Your task to perform on an android device: change text size in settings app Image 0: 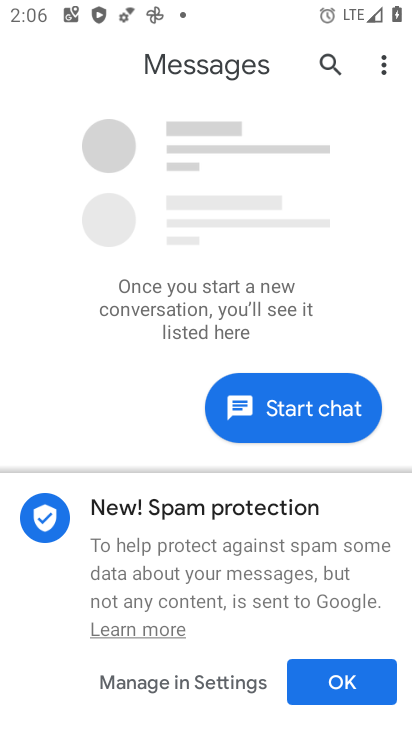
Step 0: press home button
Your task to perform on an android device: change text size in settings app Image 1: 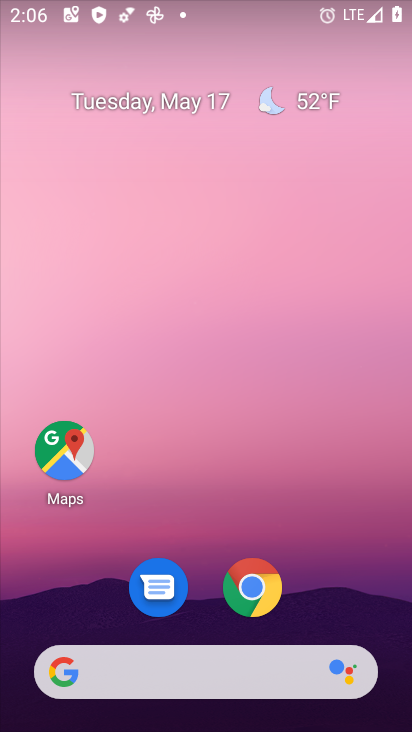
Step 1: drag from (348, 608) to (229, 182)
Your task to perform on an android device: change text size in settings app Image 2: 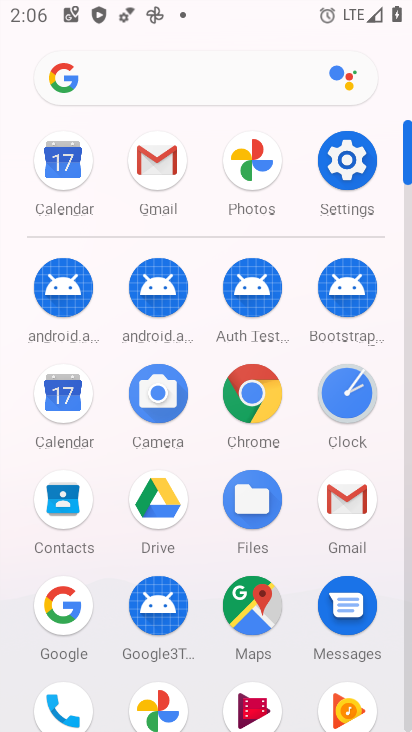
Step 2: click (345, 179)
Your task to perform on an android device: change text size in settings app Image 3: 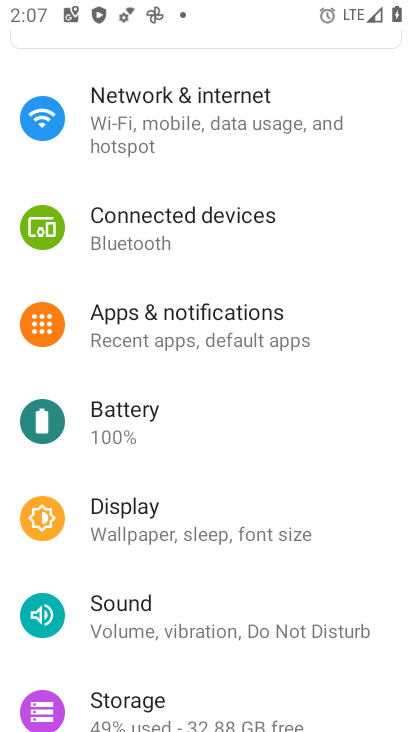
Step 3: click (199, 521)
Your task to perform on an android device: change text size in settings app Image 4: 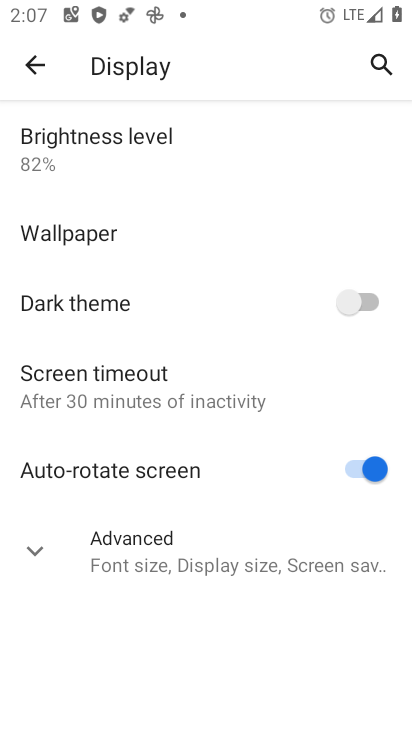
Step 4: click (209, 538)
Your task to perform on an android device: change text size in settings app Image 5: 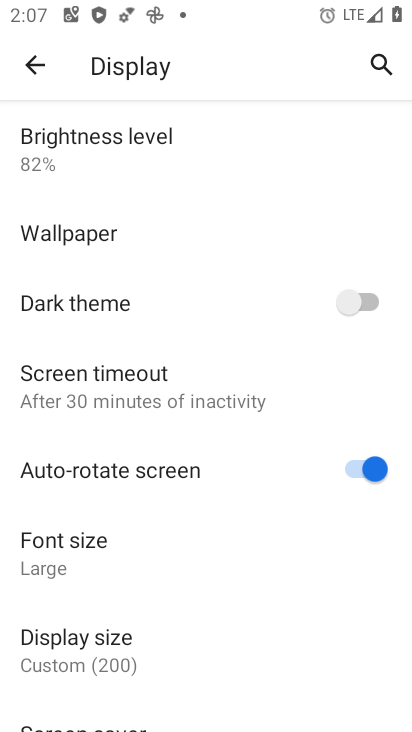
Step 5: click (214, 577)
Your task to perform on an android device: change text size in settings app Image 6: 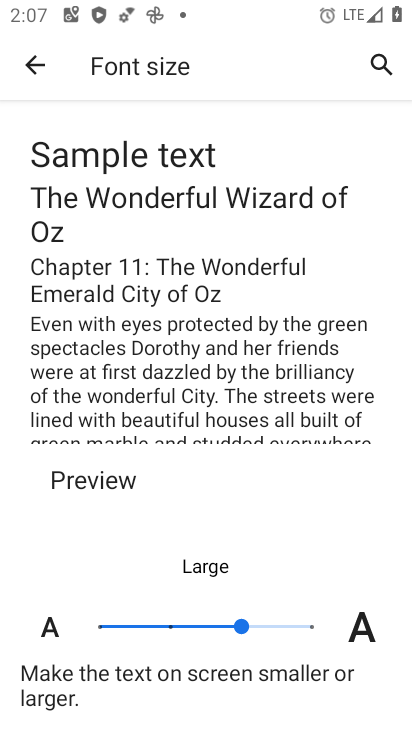
Step 6: click (300, 640)
Your task to perform on an android device: change text size in settings app Image 7: 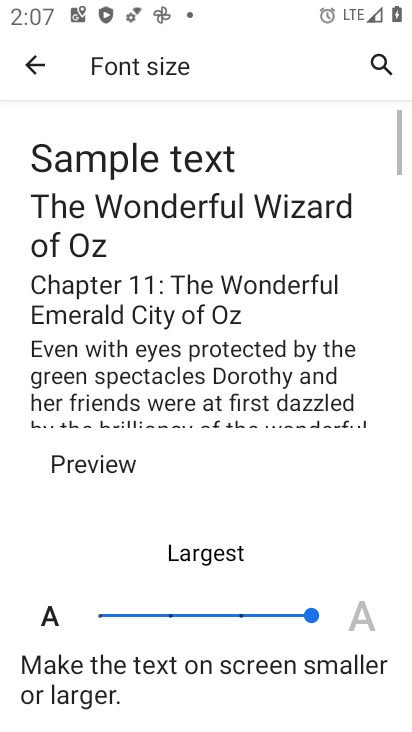
Step 7: task complete